Your task to perform on an android device: Open settings on Google Maps Image 0: 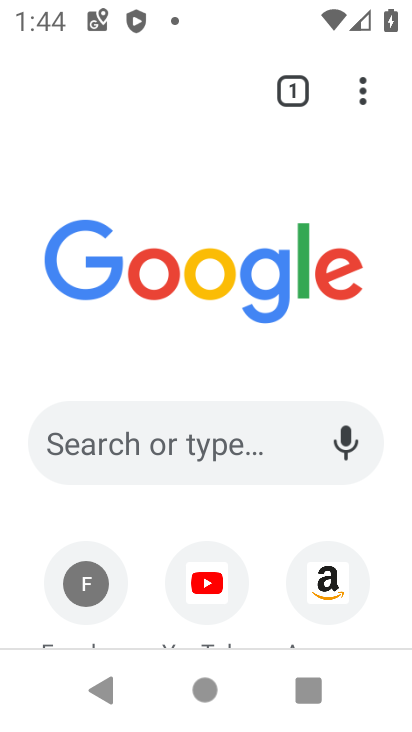
Step 0: press home button
Your task to perform on an android device: Open settings on Google Maps Image 1: 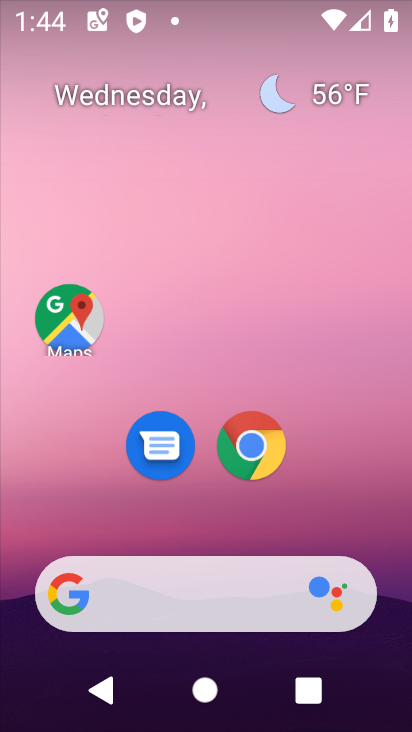
Step 1: drag from (225, 538) to (199, 11)
Your task to perform on an android device: Open settings on Google Maps Image 2: 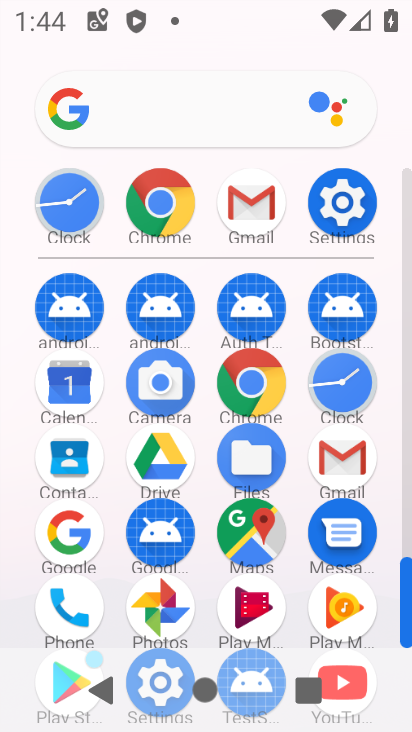
Step 2: click (267, 541)
Your task to perform on an android device: Open settings on Google Maps Image 3: 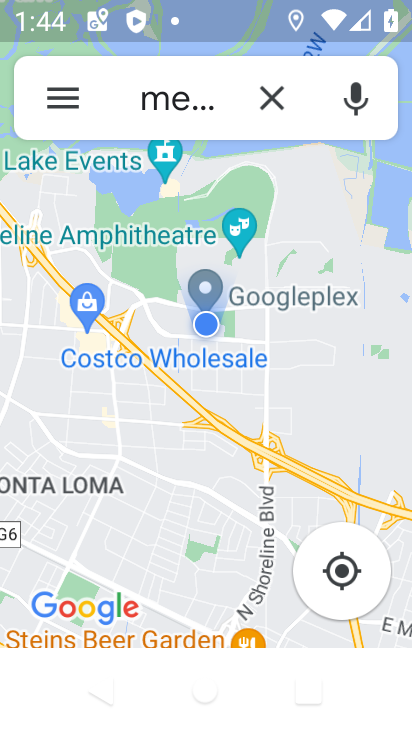
Step 3: click (52, 92)
Your task to perform on an android device: Open settings on Google Maps Image 4: 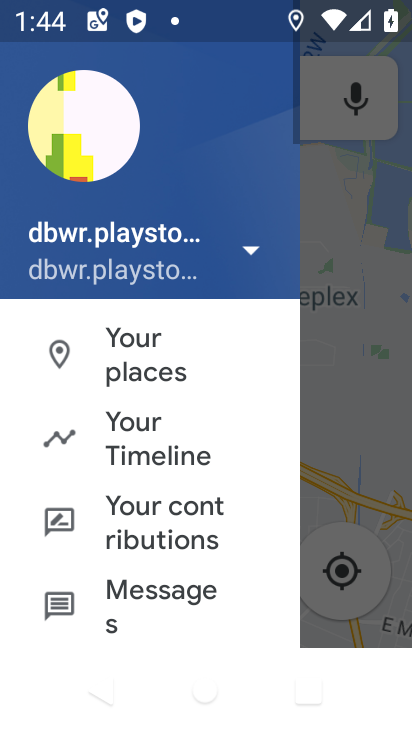
Step 4: drag from (68, 573) to (85, 57)
Your task to perform on an android device: Open settings on Google Maps Image 5: 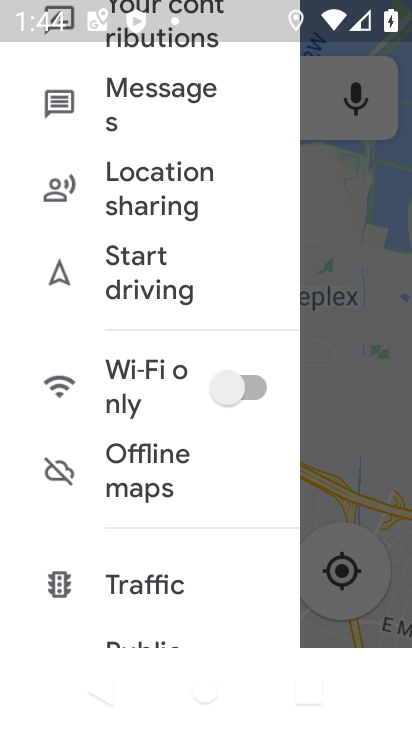
Step 5: drag from (229, 587) to (201, 61)
Your task to perform on an android device: Open settings on Google Maps Image 6: 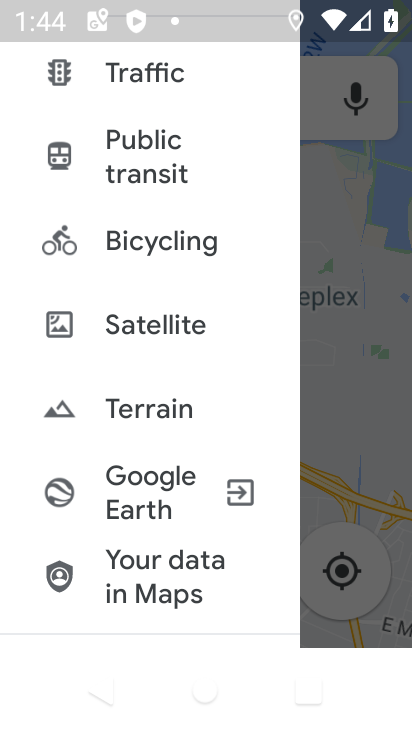
Step 6: drag from (177, 432) to (165, 77)
Your task to perform on an android device: Open settings on Google Maps Image 7: 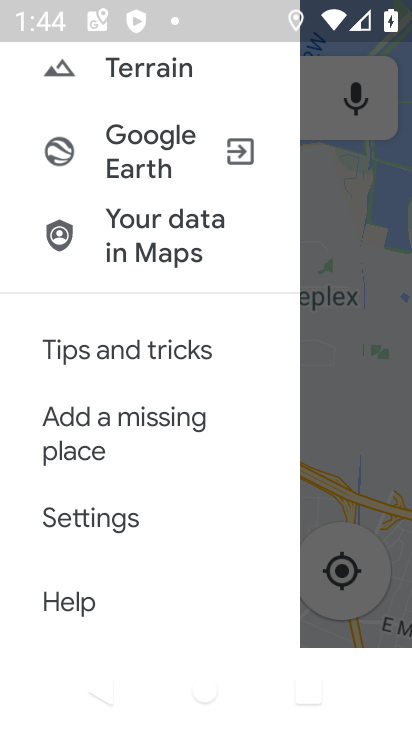
Step 7: click (60, 541)
Your task to perform on an android device: Open settings on Google Maps Image 8: 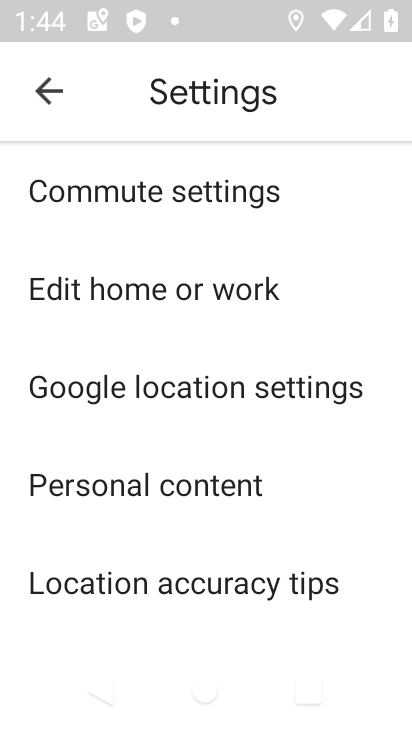
Step 8: task complete